Your task to perform on an android device: Open Chrome and go to settings Image 0: 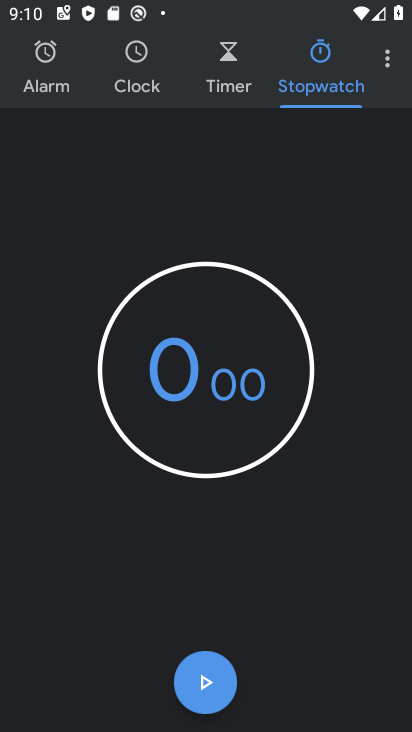
Step 0: press home button
Your task to perform on an android device: Open Chrome and go to settings Image 1: 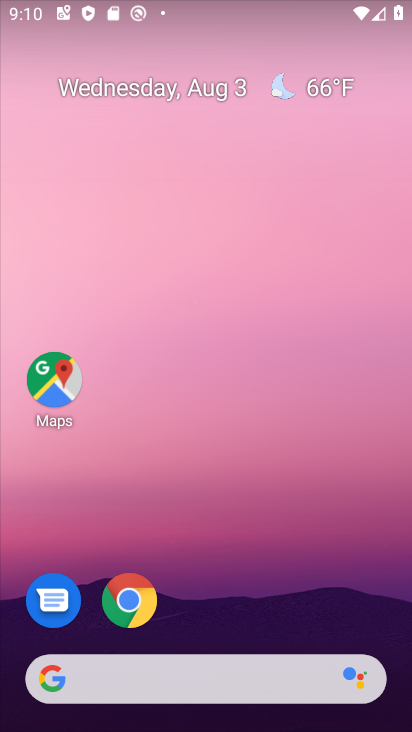
Step 1: drag from (195, 597) to (252, 20)
Your task to perform on an android device: Open Chrome and go to settings Image 2: 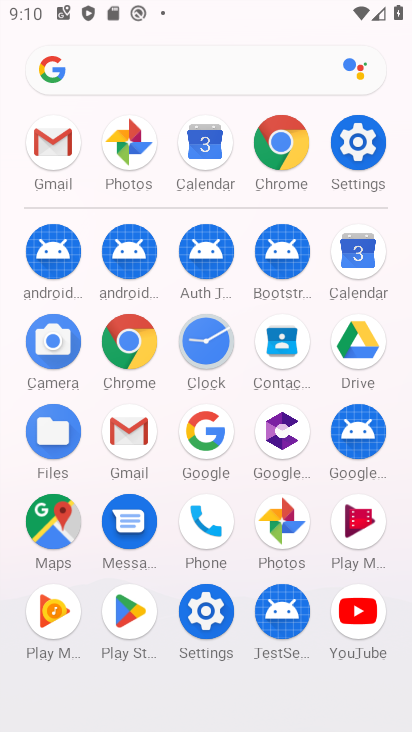
Step 2: click (289, 149)
Your task to perform on an android device: Open Chrome and go to settings Image 3: 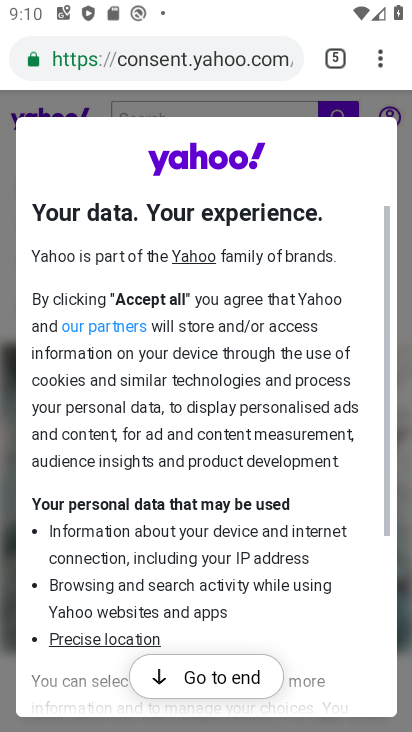
Step 3: click (378, 54)
Your task to perform on an android device: Open Chrome and go to settings Image 4: 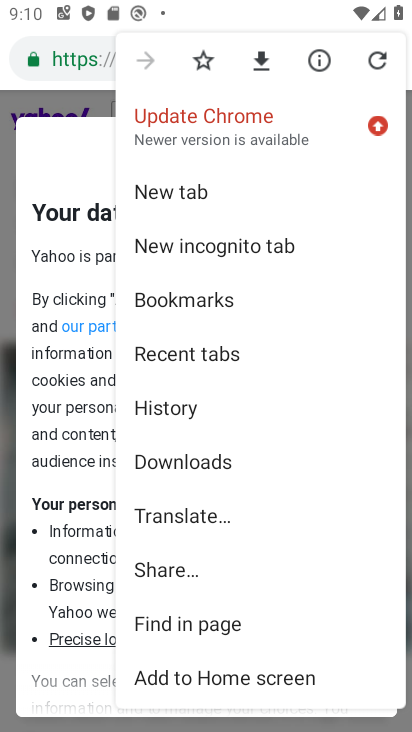
Step 4: drag from (217, 644) to (224, 293)
Your task to perform on an android device: Open Chrome and go to settings Image 5: 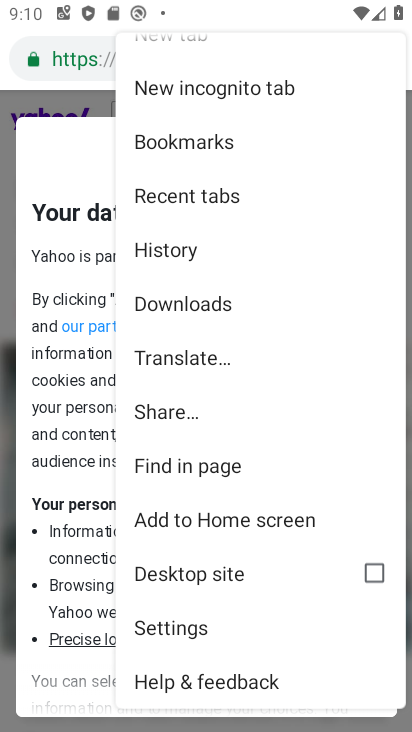
Step 5: click (178, 625)
Your task to perform on an android device: Open Chrome and go to settings Image 6: 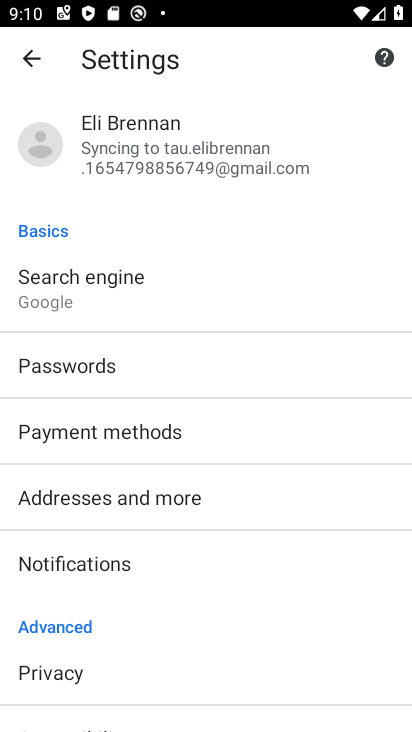
Step 6: task complete